Your task to perform on an android device: Open wifi settings Image 0: 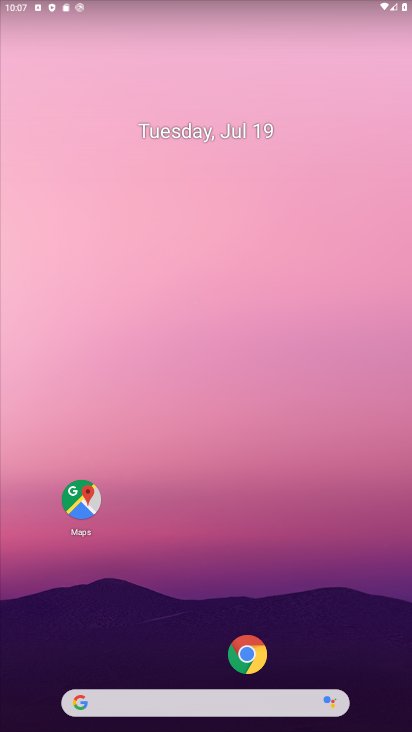
Step 0: drag from (276, 7) to (290, 524)
Your task to perform on an android device: Open wifi settings Image 1: 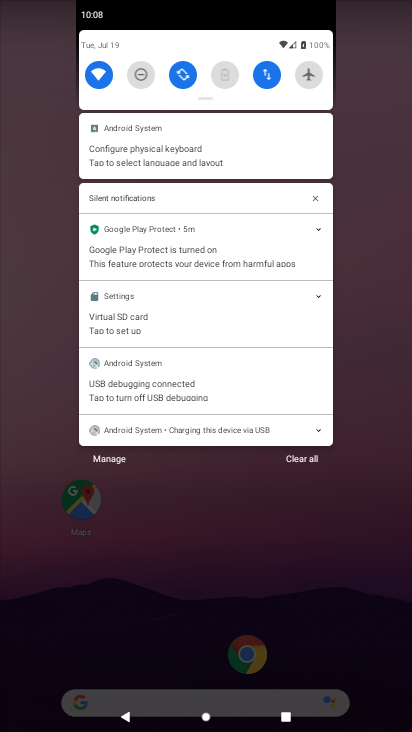
Step 1: click (99, 79)
Your task to perform on an android device: Open wifi settings Image 2: 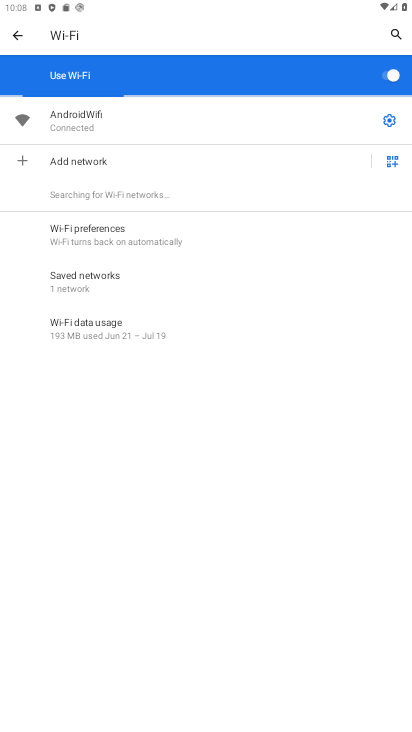
Step 2: task complete